Your task to perform on an android device: turn on airplane mode Image 0: 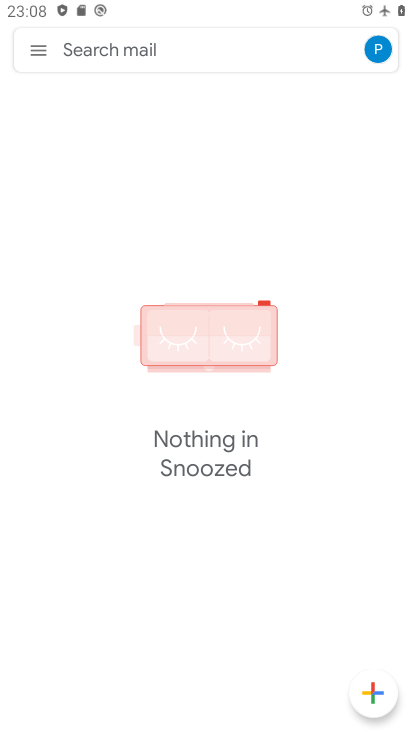
Step 0: press back button
Your task to perform on an android device: turn on airplane mode Image 1: 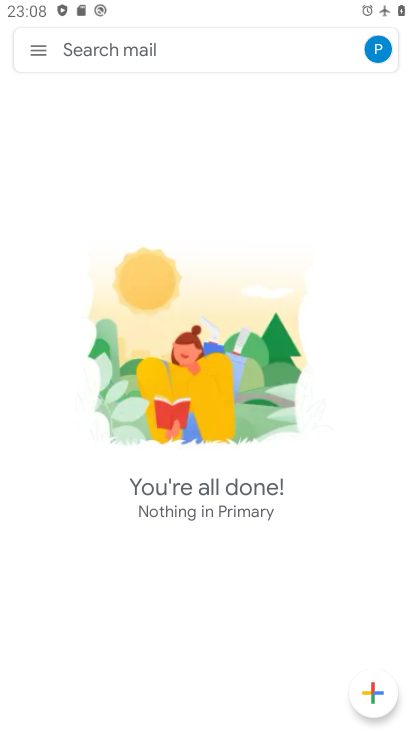
Step 1: task complete